Your task to perform on an android device: turn off location Image 0: 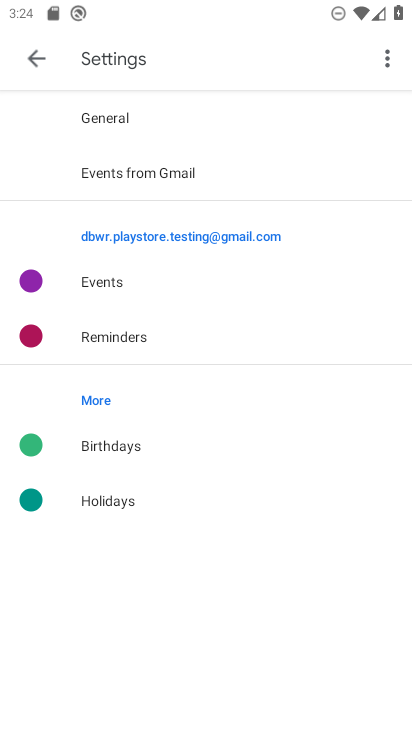
Step 0: press back button
Your task to perform on an android device: turn off location Image 1: 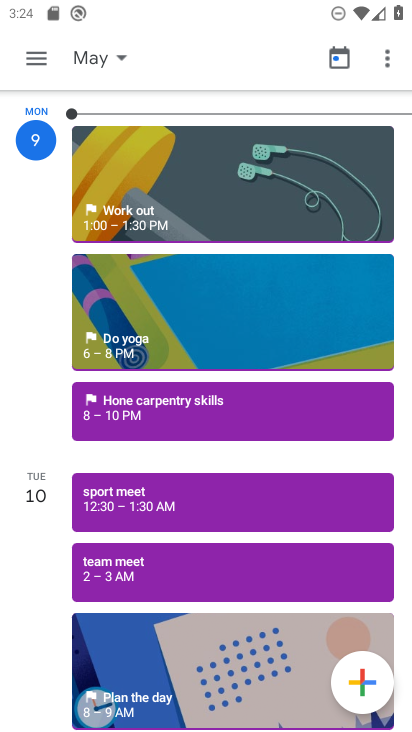
Step 1: press home button
Your task to perform on an android device: turn off location Image 2: 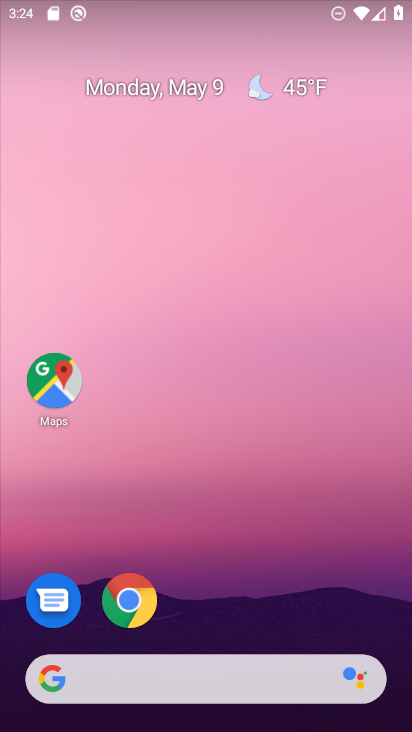
Step 2: drag from (256, 603) to (147, 6)
Your task to perform on an android device: turn off location Image 3: 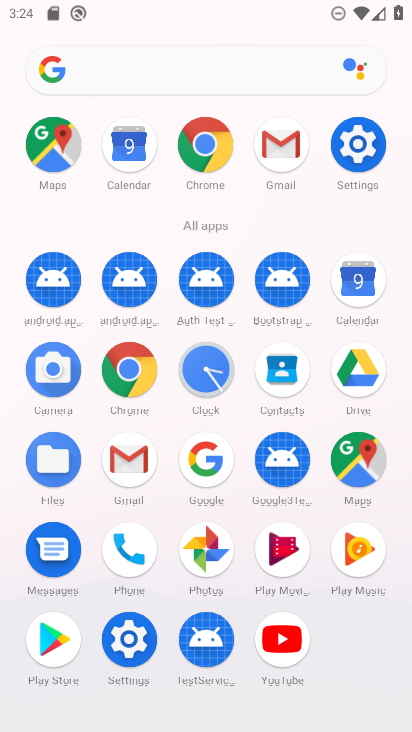
Step 3: drag from (0, 559) to (6, 122)
Your task to perform on an android device: turn off location Image 4: 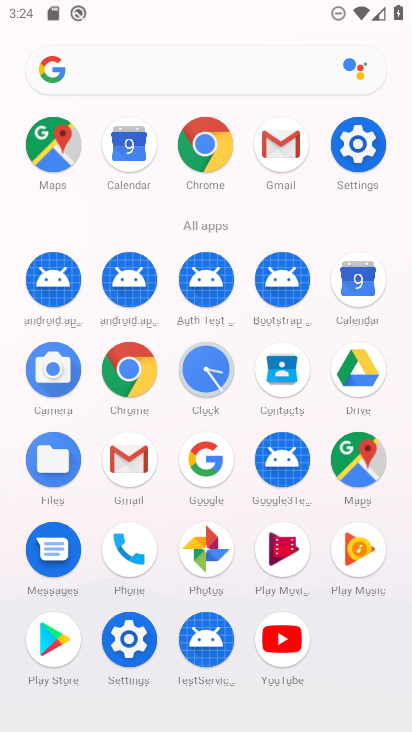
Step 4: click (355, 145)
Your task to perform on an android device: turn off location Image 5: 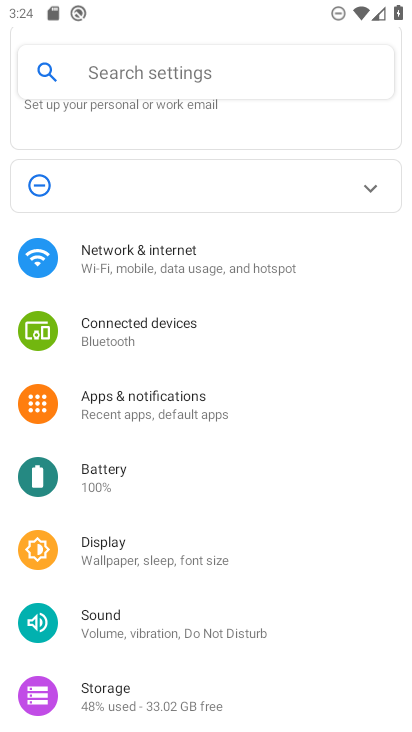
Step 5: drag from (267, 495) to (278, 65)
Your task to perform on an android device: turn off location Image 6: 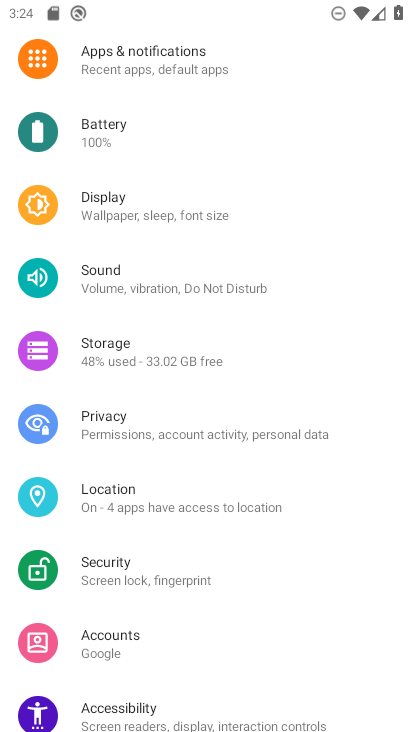
Step 6: click (141, 501)
Your task to perform on an android device: turn off location Image 7: 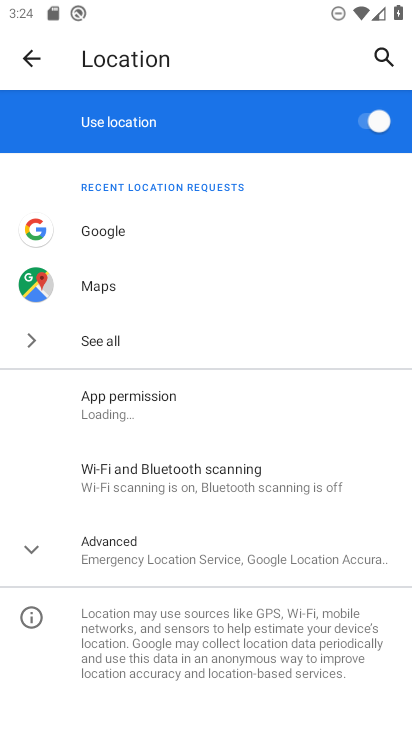
Step 7: click (366, 125)
Your task to perform on an android device: turn off location Image 8: 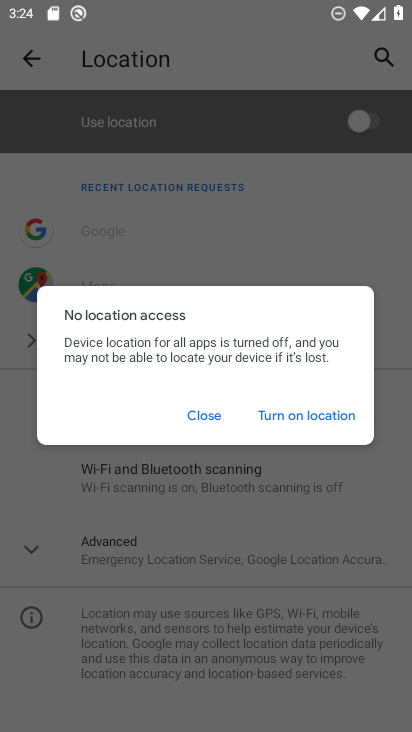
Step 8: click (307, 419)
Your task to perform on an android device: turn off location Image 9: 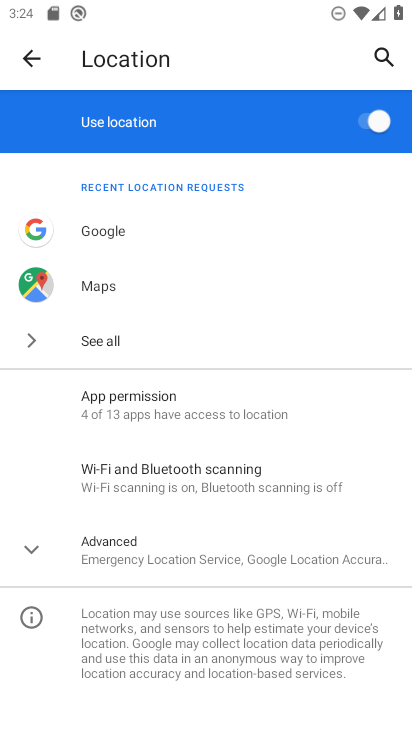
Step 9: click (368, 110)
Your task to perform on an android device: turn off location Image 10: 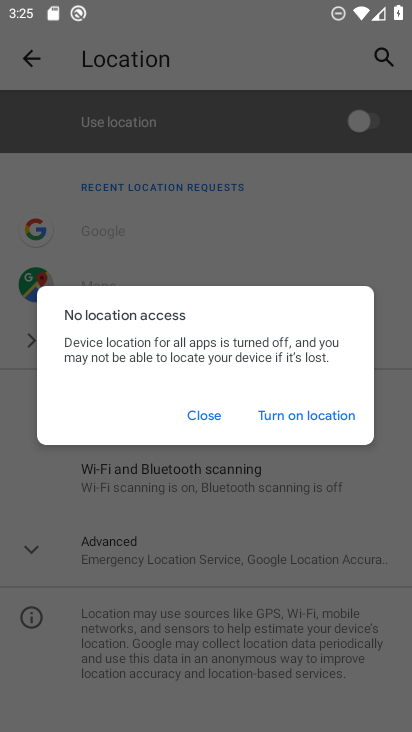
Step 10: click (213, 419)
Your task to perform on an android device: turn off location Image 11: 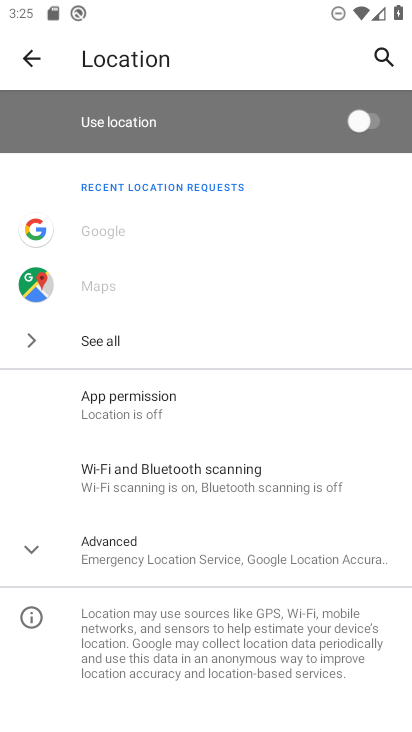
Step 11: click (32, 552)
Your task to perform on an android device: turn off location Image 12: 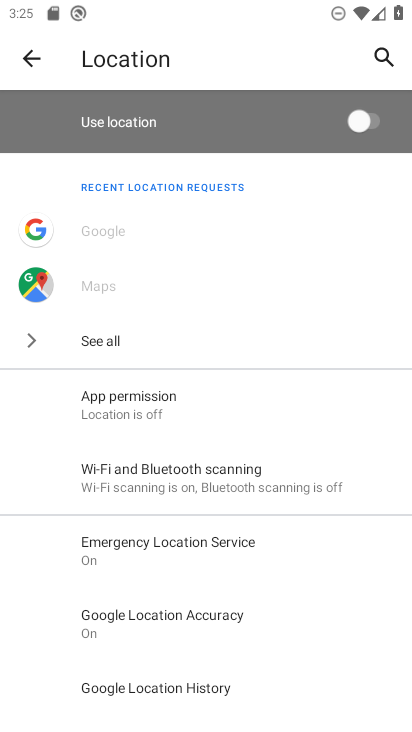
Step 12: task complete